Your task to perform on an android device: Open the phone app and click the voicemail tab. Image 0: 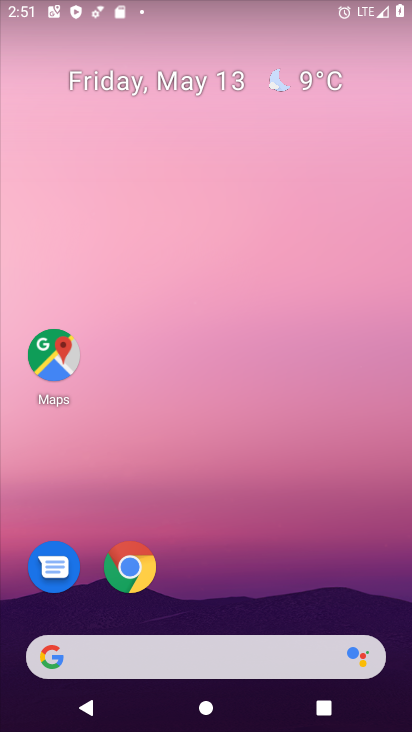
Step 0: drag from (279, 405) to (289, 17)
Your task to perform on an android device: Open the phone app and click the voicemail tab. Image 1: 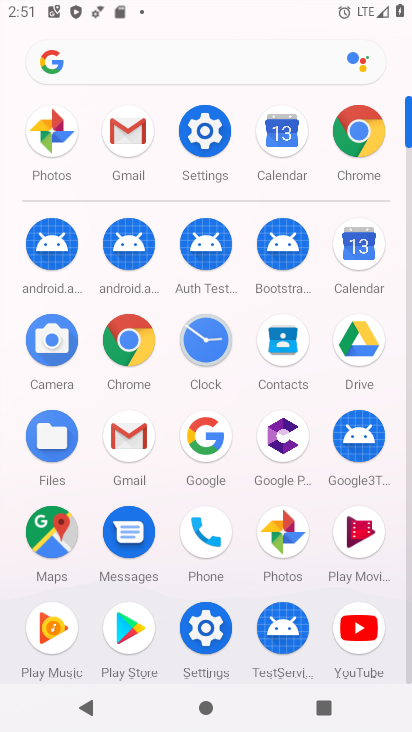
Step 1: click (191, 537)
Your task to perform on an android device: Open the phone app and click the voicemail tab. Image 2: 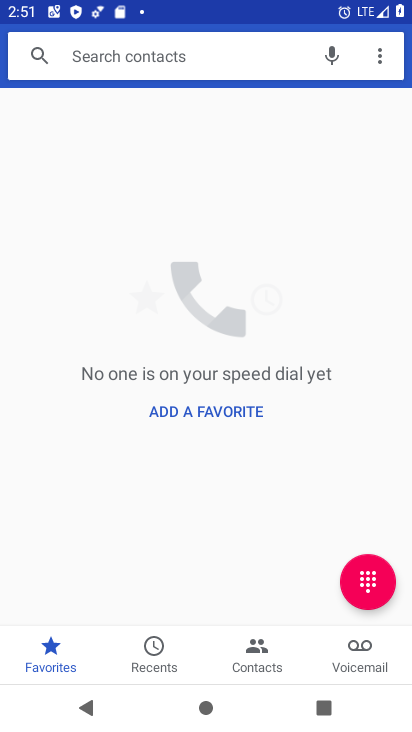
Step 2: click (358, 678)
Your task to perform on an android device: Open the phone app and click the voicemail tab. Image 3: 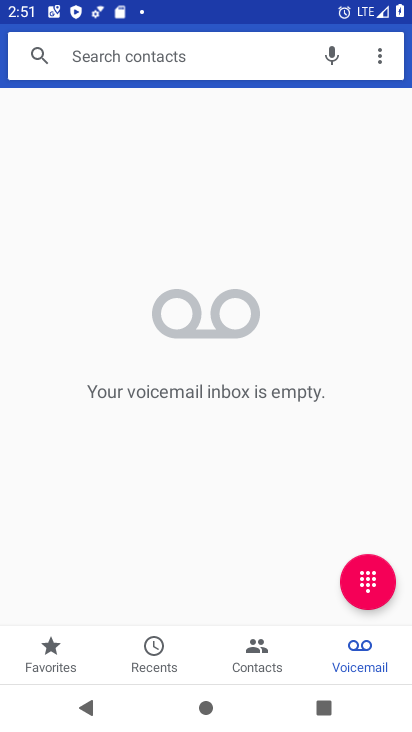
Step 3: click (358, 642)
Your task to perform on an android device: Open the phone app and click the voicemail tab. Image 4: 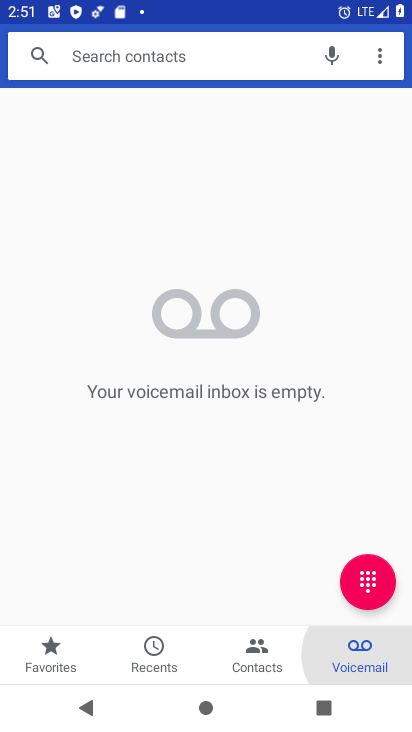
Step 4: click (358, 641)
Your task to perform on an android device: Open the phone app and click the voicemail tab. Image 5: 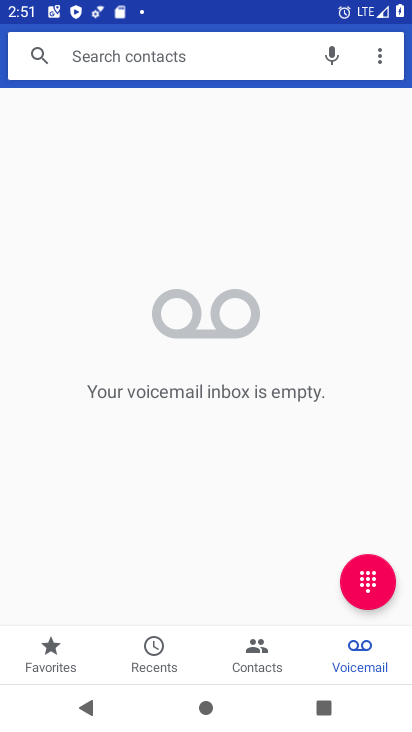
Step 5: task complete